Your task to perform on an android device: Open calendar and show me the third week of next month Image 0: 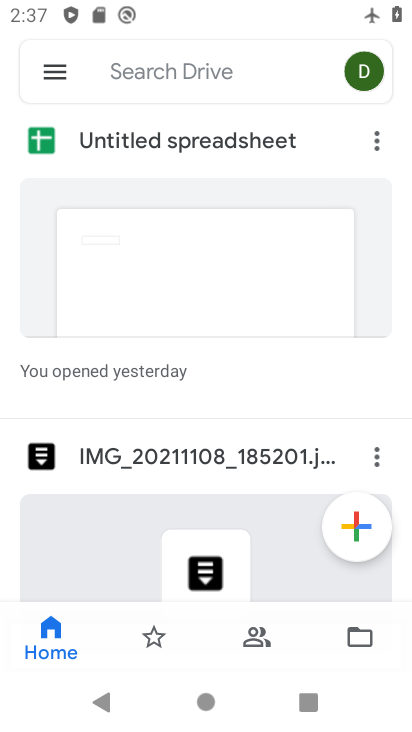
Step 0: press home button
Your task to perform on an android device: Open calendar and show me the third week of next month Image 1: 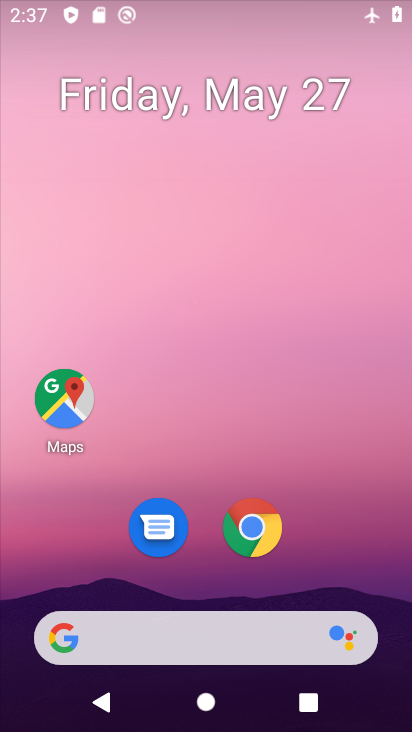
Step 1: drag from (270, 616) to (266, 0)
Your task to perform on an android device: Open calendar and show me the third week of next month Image 2: 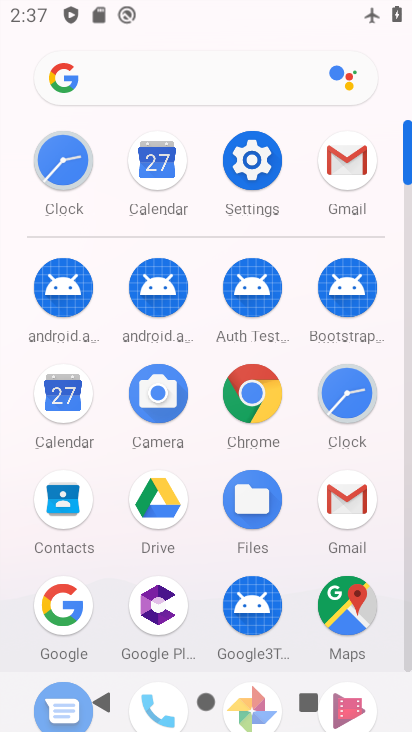
Step 2: click (141, 163)
Your task to perform on an android device: Open calendar and show me the third week of next month Image 3: 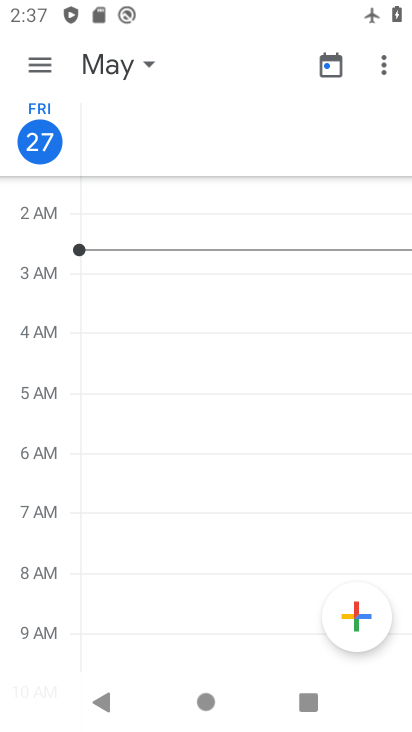
Step 3: click (101, 70)
Your task to perform on an android device: Open calendar and show me the third week of next month Image 4: 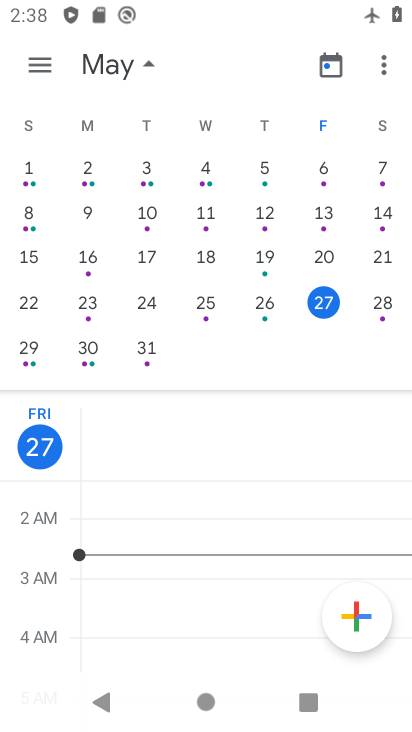
Step 4: drag from (346, 214) to (75, 234)
Your task to perform on an android device: Open calendar and show me the third week of next month Image 5: 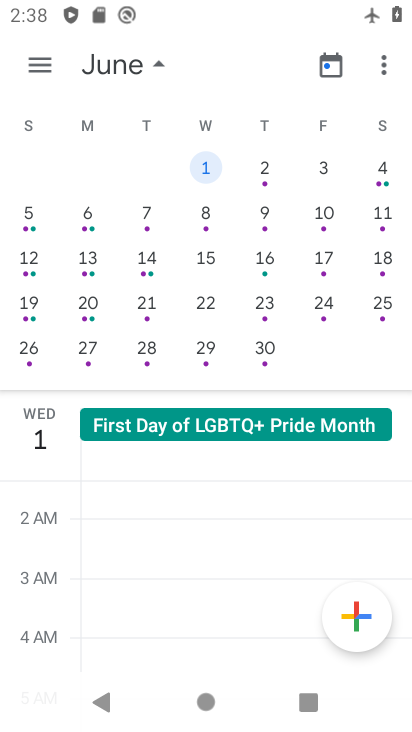
Step 5: click (31, 259)
Your task to perform on an android device: Open calendar and show me the third week of next month Image 6: 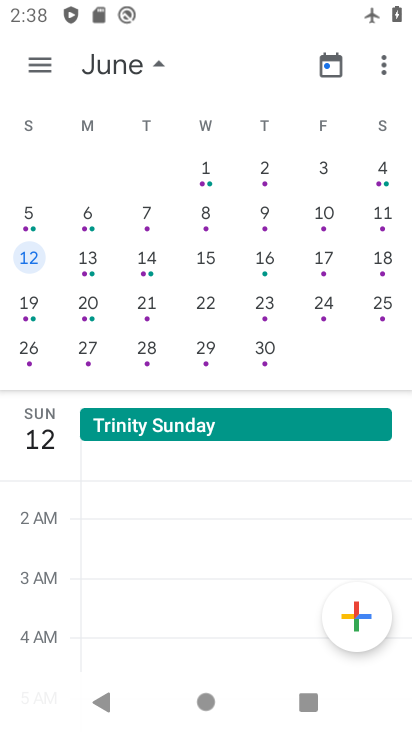
Step 6: task complete